Your task to perform on an android device: Show me productivity apps on the Play Store Image 0: 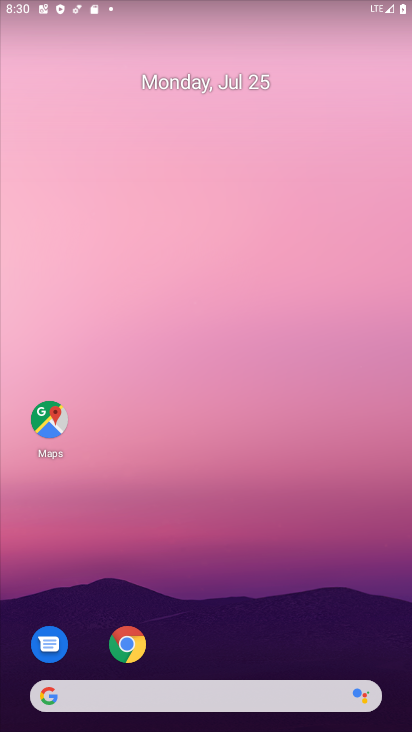
Step 0: drag from (261, 624) to (228, 215)
Your task to perform on an android device: Show me productivity apps on the Play Store Image 1: 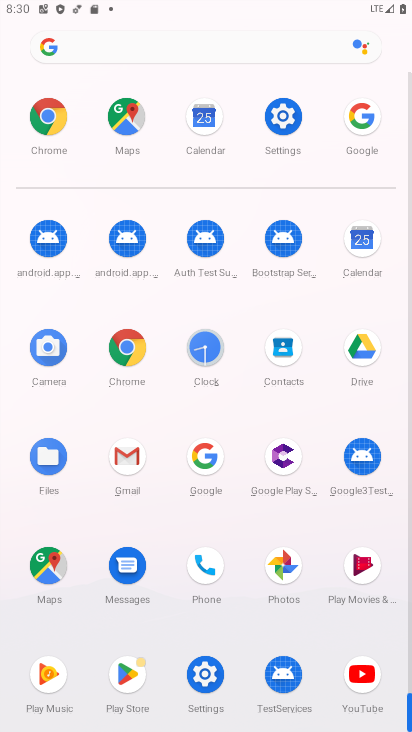
Step 1: click (129, 675)
Your task to perform on an android device: Show me productivity apps on the Play Store Image 2: 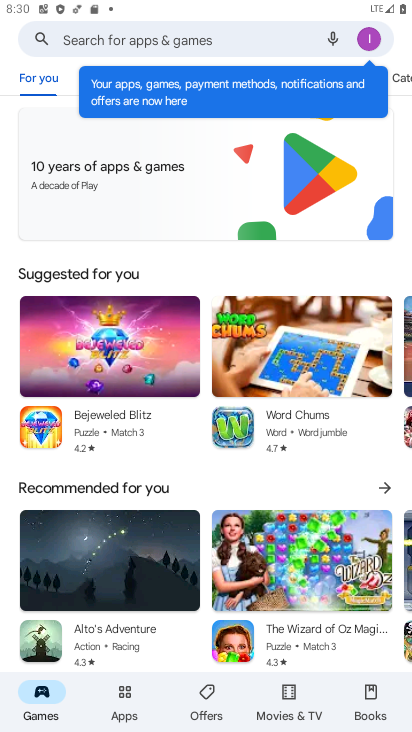
Step 2: click (159, 36)
Your task to perform on an android device: Show me productivity apps on the Play Store Image 3: 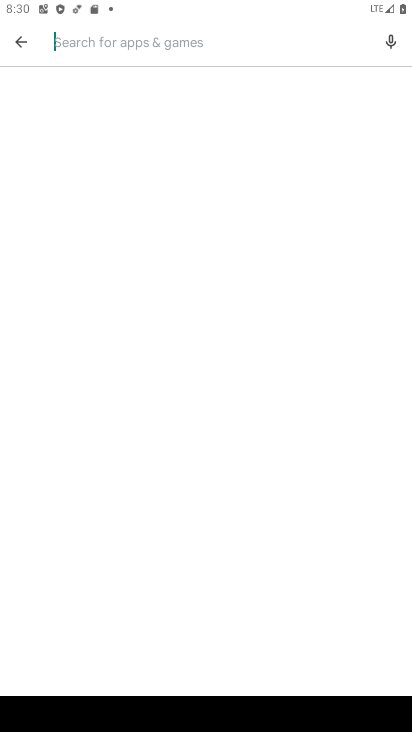
Step 3: type "productivity apps "
Your task to perform on an android device: Show me productivity apps on the Play Store Image 4: 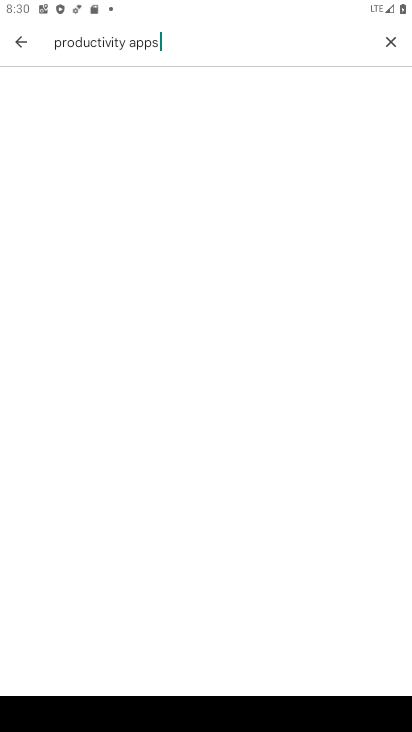
Step 4: type ""
Your task to perform on an android device: Show me productivity apps on the Play Store Image 5: 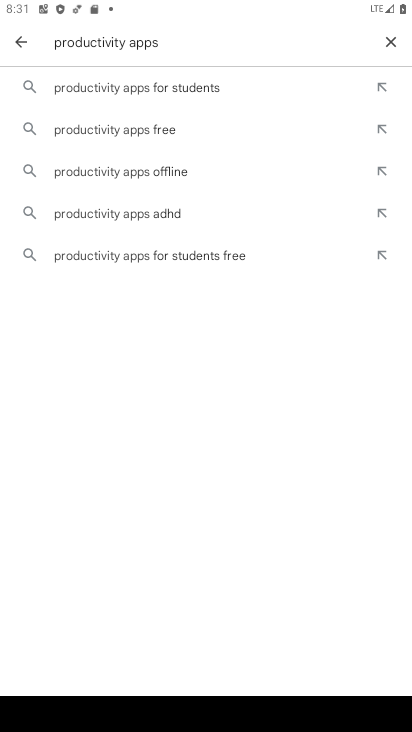
Step 5: click (172, 136)
Your task to perform on an android device: Show me productivity apps on the Play Store Image 6: 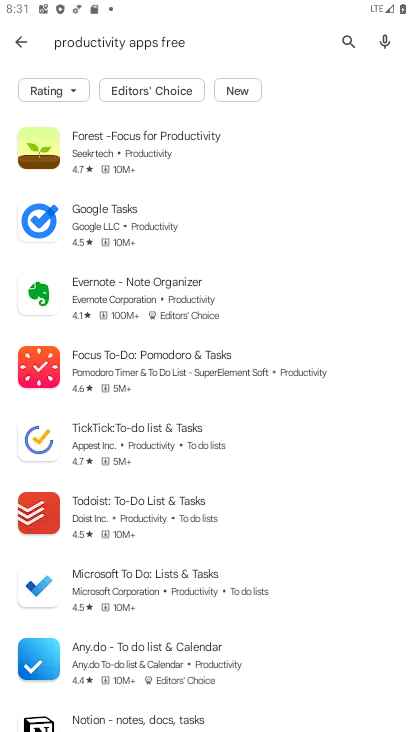
Step 6: task complete